Your task to perform on an android device: check android version Image 0: 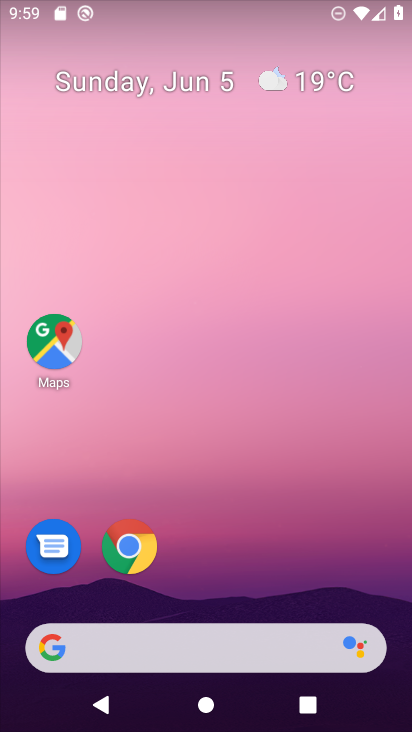
Step 0: drag from (212, 611) to (180, 202)
Your task to perform on an android device: check android version Image 1: 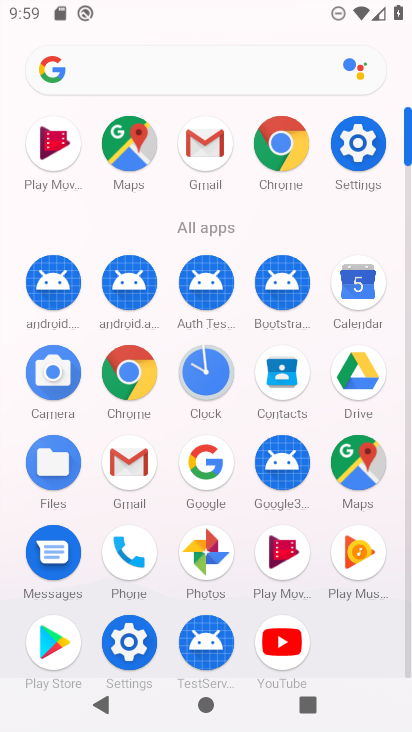
Step 1: click (354, 133)
Your task to perform on an android device: check android version Image 2: 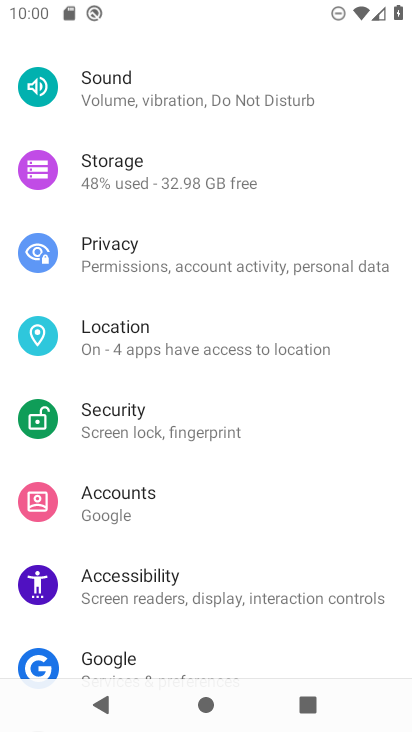
Step 2: drag from (154, 568) to (74, 214)
Your task to perform on an android device: check android version Image 3: 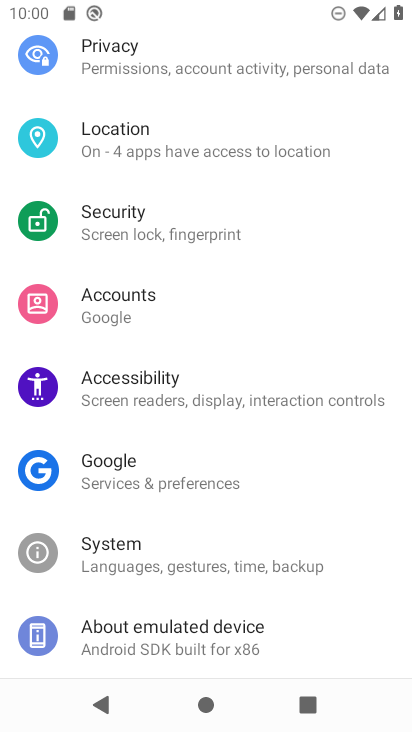
Step 3: click (168, 617)
Your task to perform on an android device: check android version Image 4: 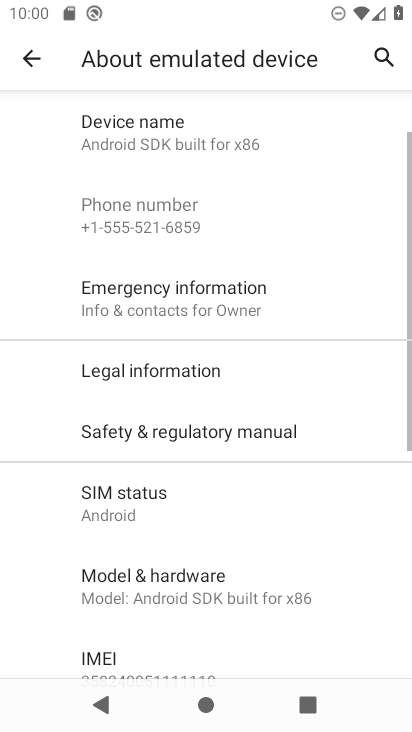
Step 4: drag from (367, 614) to (228, 113)
Your task to perform on an android device: check android version Image 5: 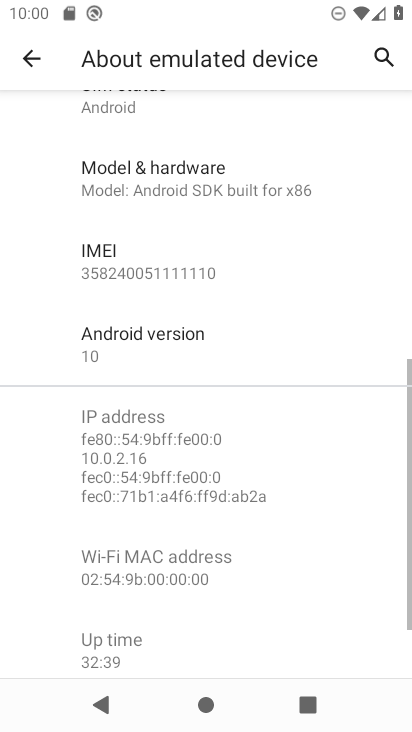
Step 5: click (112, 339)
Your task to perform on an android device: check android version Image 6: 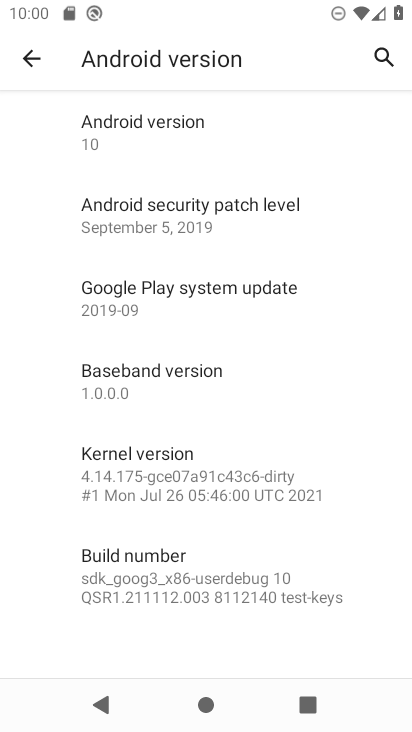
Step 6: task complete